Your task to perform on an android device: Go to wifi settings Image 0: 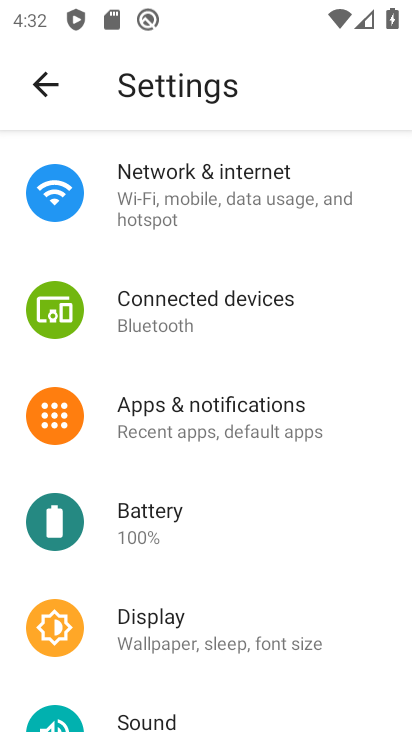
Step 0: click (165, 191)
Your task to perform on an android device: Go to wifi settings Image 1: 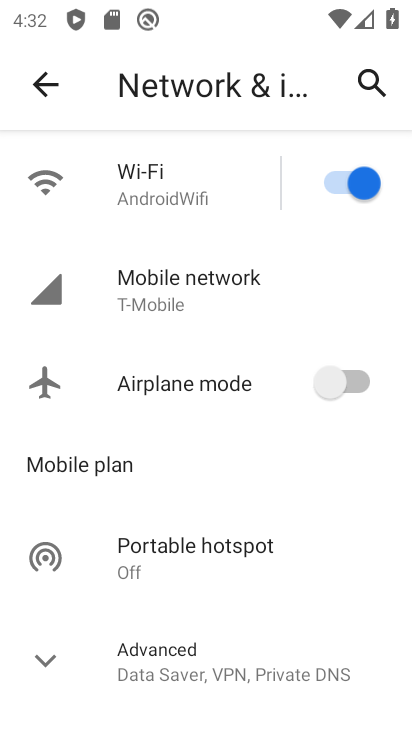
Step 1: click (161, 181)
Your task to perform on an android device: Go to wifi settings Image 2: 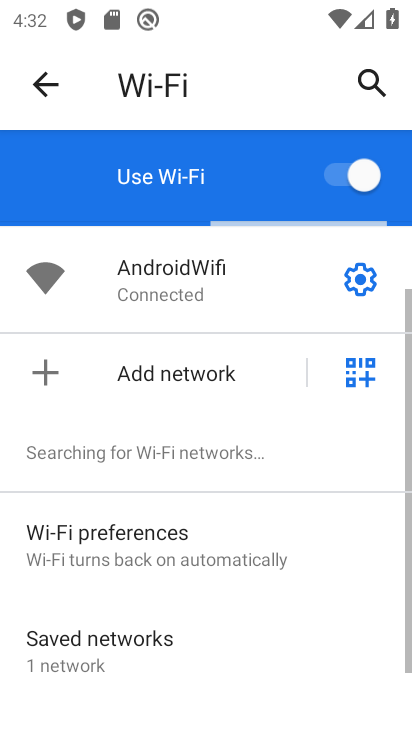
Step 2: click (367, 286)
Your task to perform on an android device: Go to wifi settings Image 3: 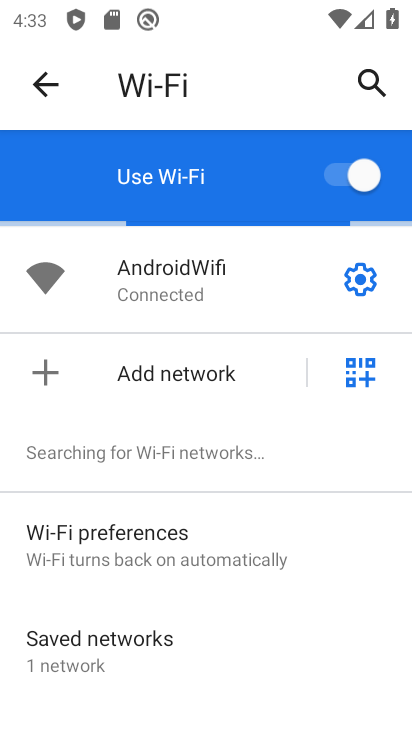
Step 3: click (364, 279)
Your task to perform on an android device: Go to wifi settings Image 4: 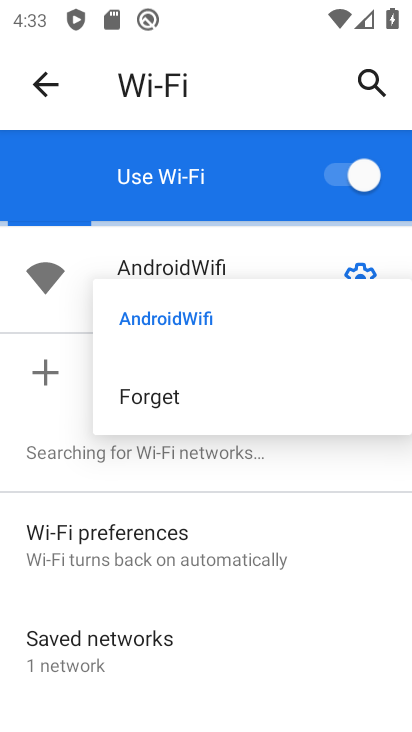
Step 4: click (337, 245)
Your task to perform on an android device: Go to wifi settings Image 5: 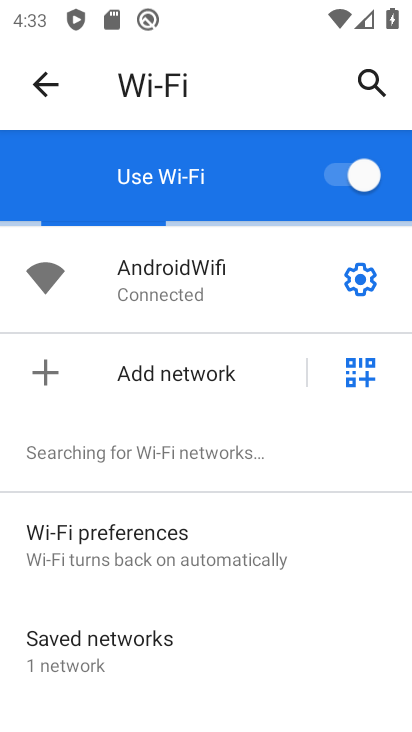
Step 5: click (365, 272)
Your task to perform on an android device: Go to wifi settings Image 6: 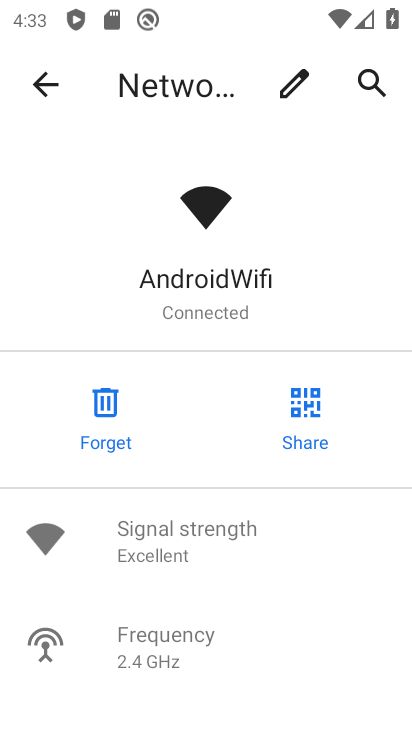
Step 6: drag from (202, 611) to (202, 297)
Your task to perform on an android device: Go to wifi settings Image 7: 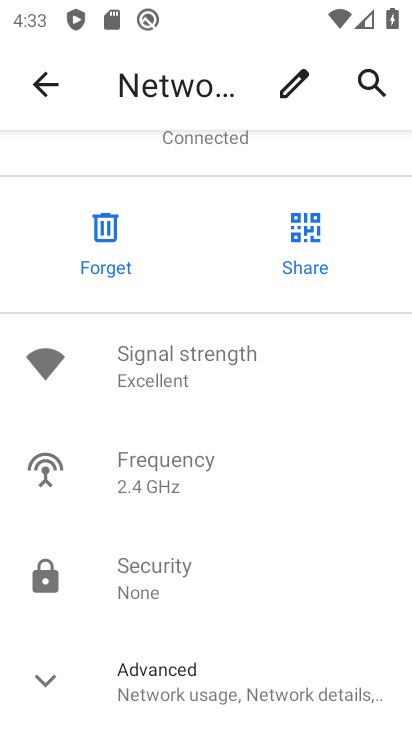
Step 7: click (123, 680)
Your task to perform on an android device: Go to wifi settings Image 8: 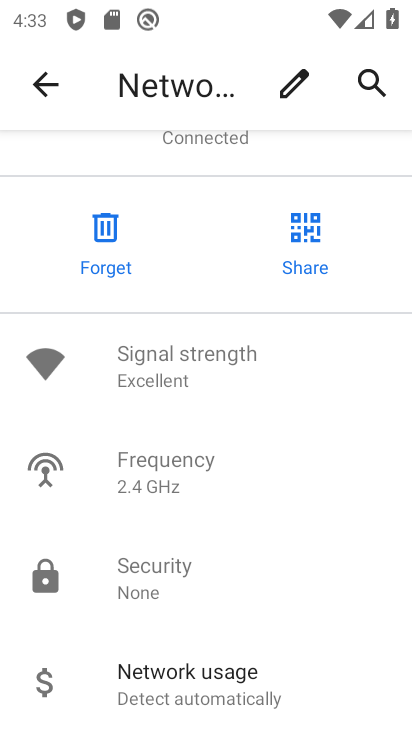
Step 8: task complete